Your task to perform on an android device: Clear the shopping cart on amazon. Search for rayovac triple a on amazon, select the first entry, and add it to the cart. Image 0: 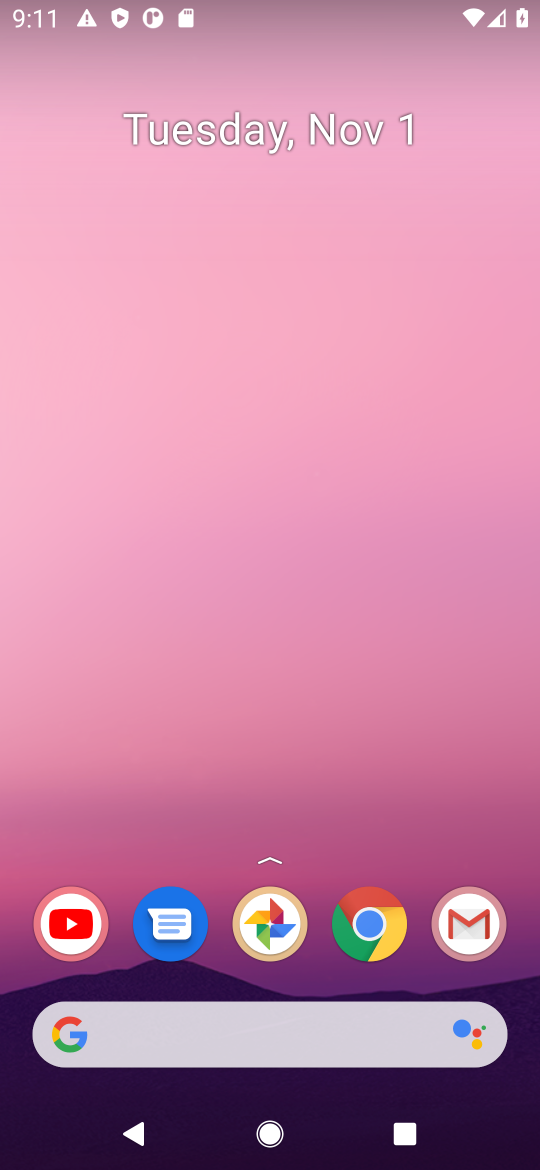
Step 0: click (375, 935)
Your task to perform on an android device: Clear the shopping cart on amazon. Search for rayovac triple a on amazon, select the first entry, and add it to the cart. Image 1: 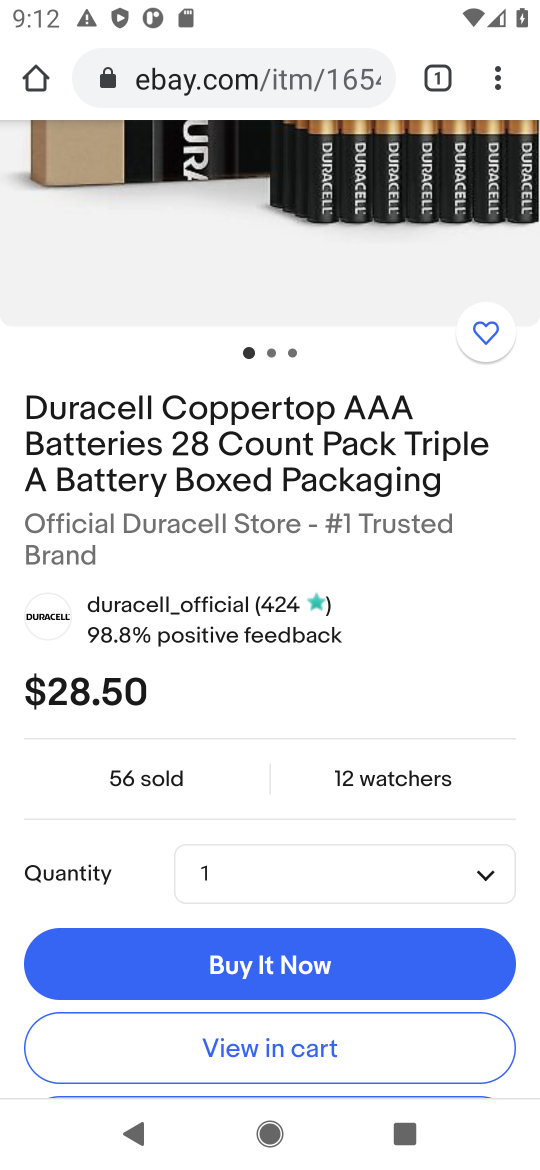
Step 1: click (248, 92)
Your task to perform on an android device: Clear the shopping cart on amazon. Search for rayovac triple a on amazon, select the first entry, and add it to the cart. Image 2: 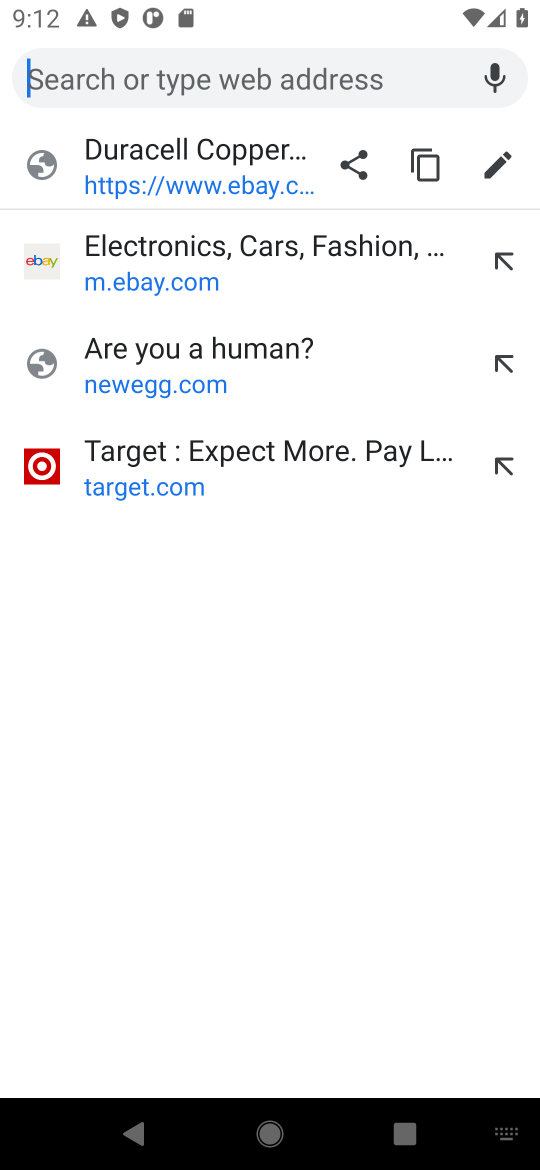
Step 2: type "amazon"
Your task to perform on an android device: Clear the shopping cart on amazon. Search for rayovac triple a on amazon, select the first entry, and add it to the cart. Image 3: 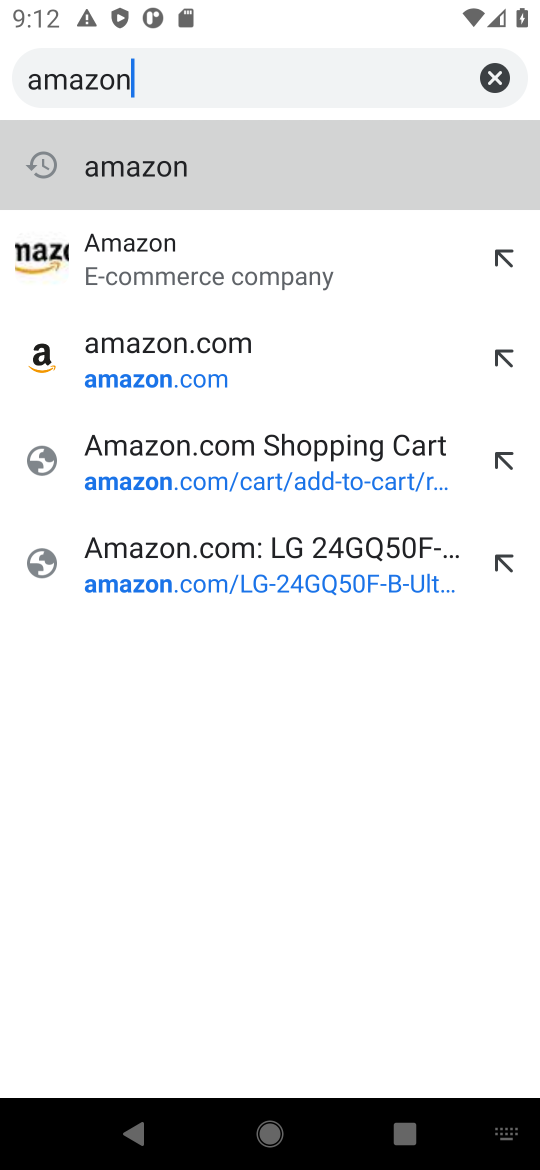
Step 3: click (142, 255)
Your task to perform on an android device: Clear the shopping cart on amazon. Search for rayovac triple a on amazon, select the first entry, and add it to the cart. Image 4: 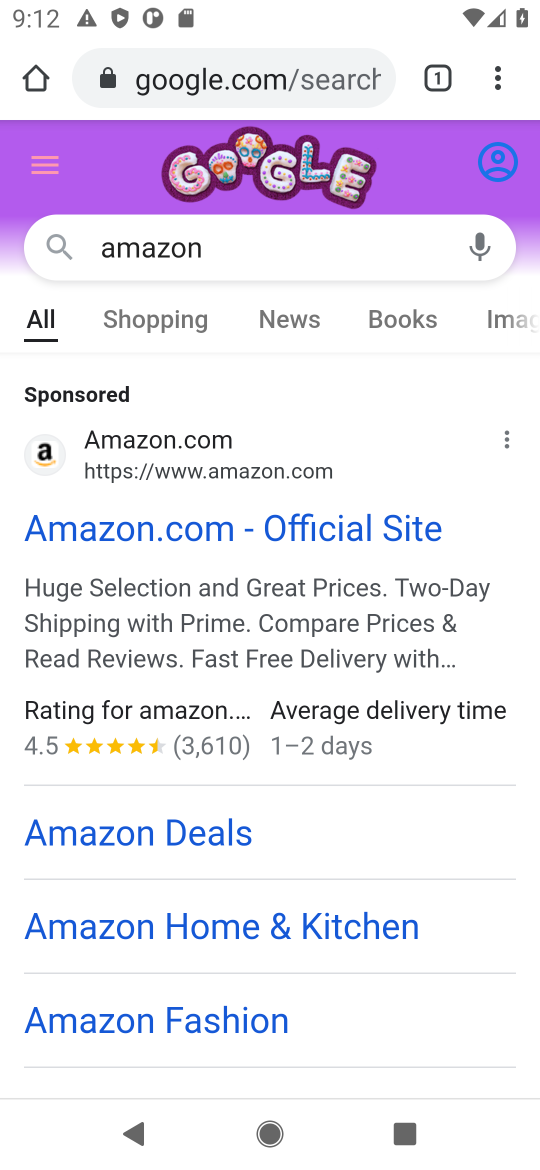
Step 4: click (187, 523)
Your task to perform on an android device: Clear the shopping cart on amazon. Search for rayovac triple a on amazon, select the first entry, and add it to the cart. Image 5: 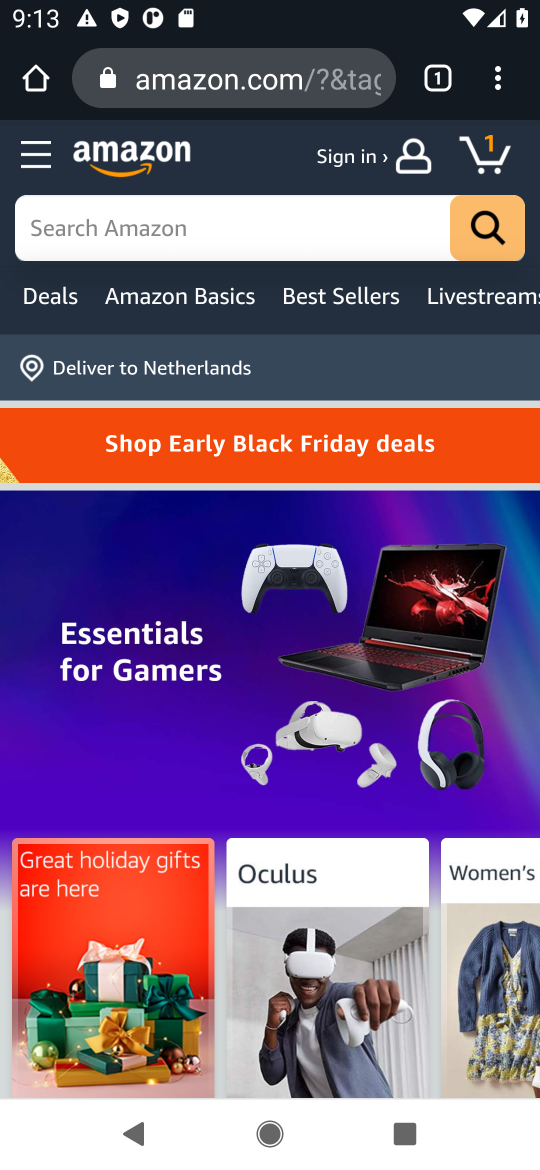
Step 5: click (490, 155)
Your task to perform on an android device: Clear the shopping cart on amazon. Search for rayovac triple a on amazon, select the first entry, and add it to the cart. Image 6: 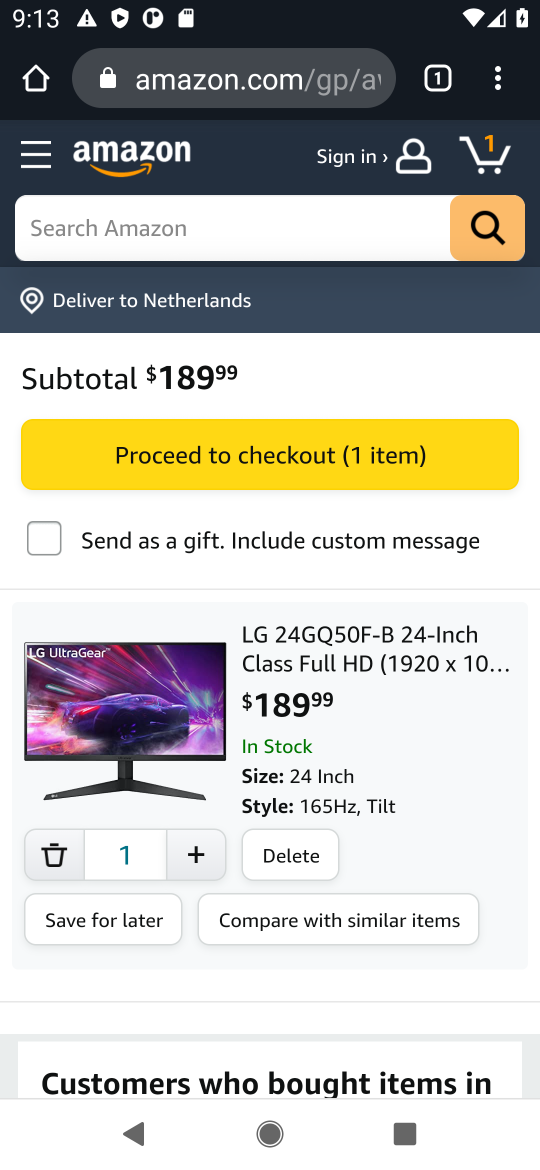
Step 6: click (267, 853)
Your task to perform on an android device: Clear the shopping cart on amazon. Search for rayovac triple a on amazon, select the first entry, and add it to the cart. Image 7: 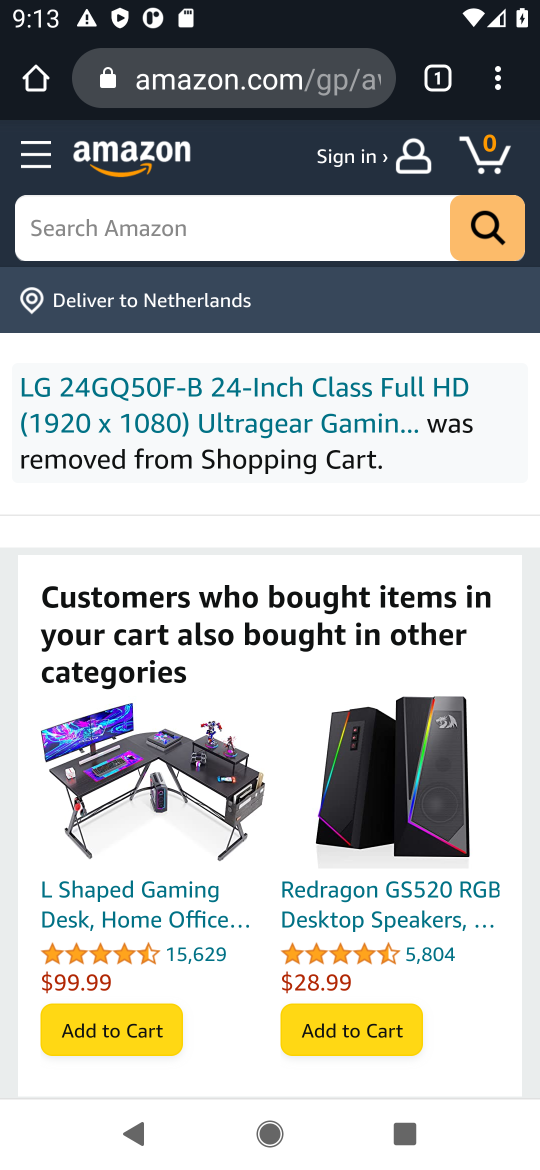
Step 7: click (288, 229)
Your task to perform on an android device: Clear the shopping cart on amazon. Search for rayovac triple a on amazon, select the first entry, and add it to the cart. Image 8: 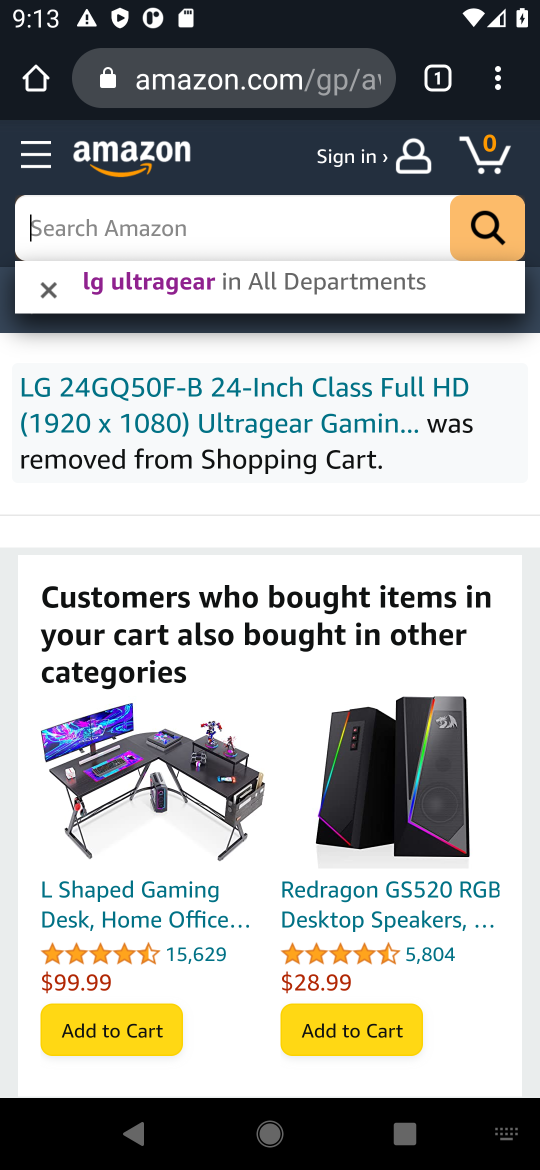
Step 8: type "rayovac triple a"
Your task to perform on an android device: Clear the shopping cart on amazon. Search for rayovac triple a on amazon, select the first entry, and add it to the cart. Image 9: 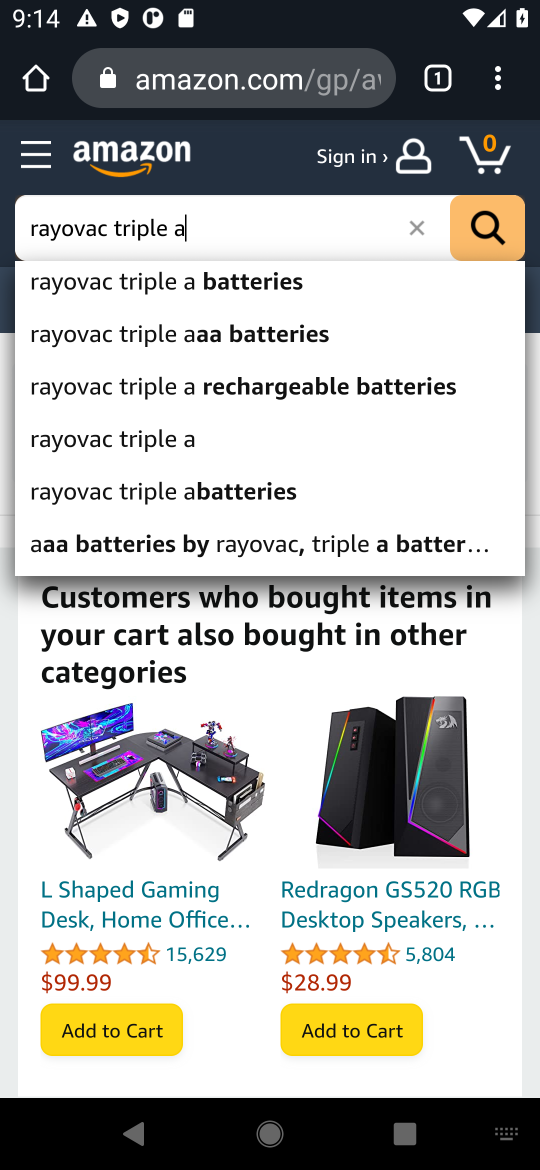
Step 9: press enter
Your task to perform on an android device: Clear the shopping cart on amazon. Search for rayovac triple a on amazon, select the first entry, and add it to the cart. Image 10: 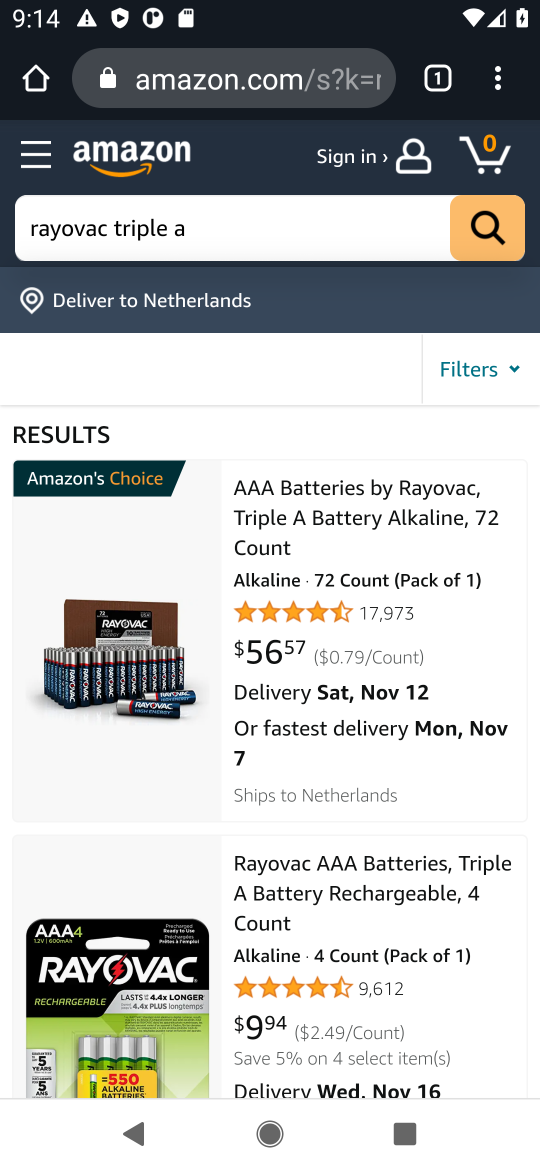
Step 10: click (349, 555)
Your task to perform on an android device: Clear the shopping cart on amazon. Search for rayovac triple a on amazon, select the first entry, and add it to the cart. Image 11: 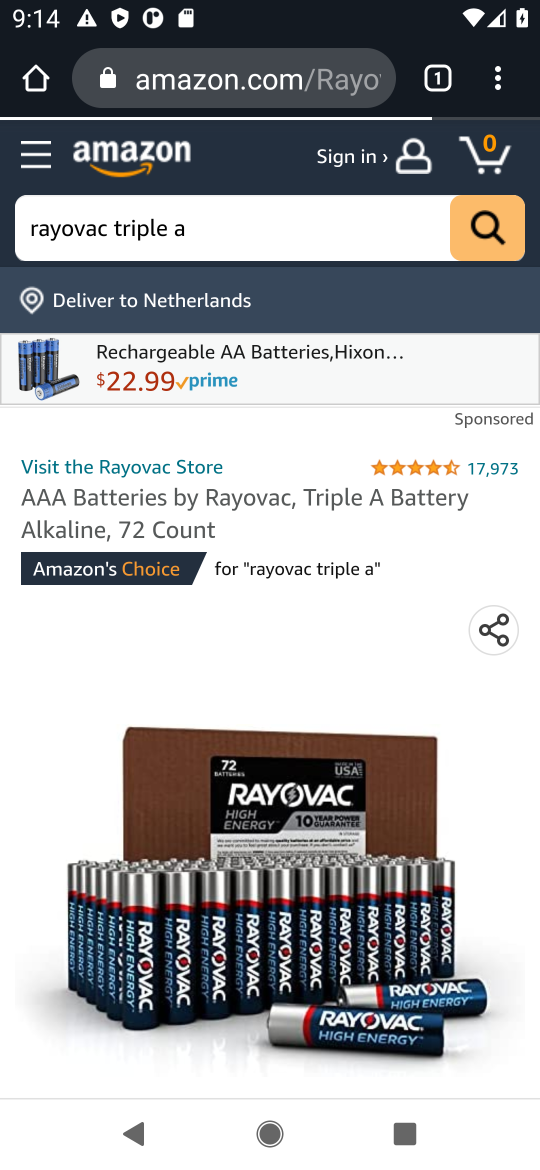
Step 11: drag from (372, 651) to (322, 170)
Your task to perform on an android device: Clear the shopping cart on amazon. Search for rayovac triple a on amazon, select the first entry, and add it to the cart. Image 12: 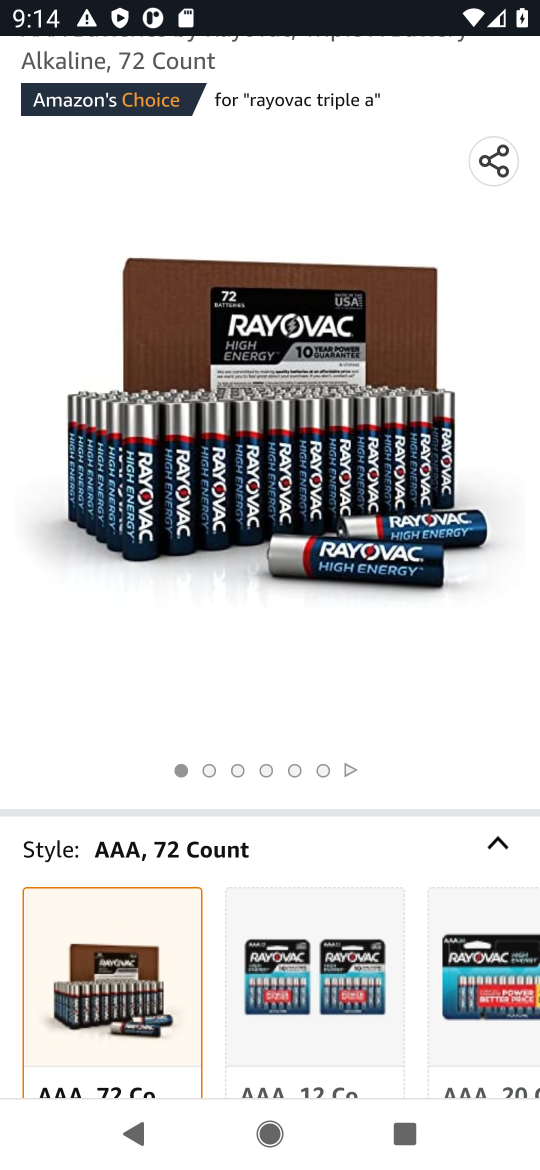
Step 12: drag from (422, 808) to (361, 384)
Your task to perform on an android device: Clear the shopping cart on amazon. Search for rayovac triple a on amazon, select the first entry, and add it to the cart. Image 13: 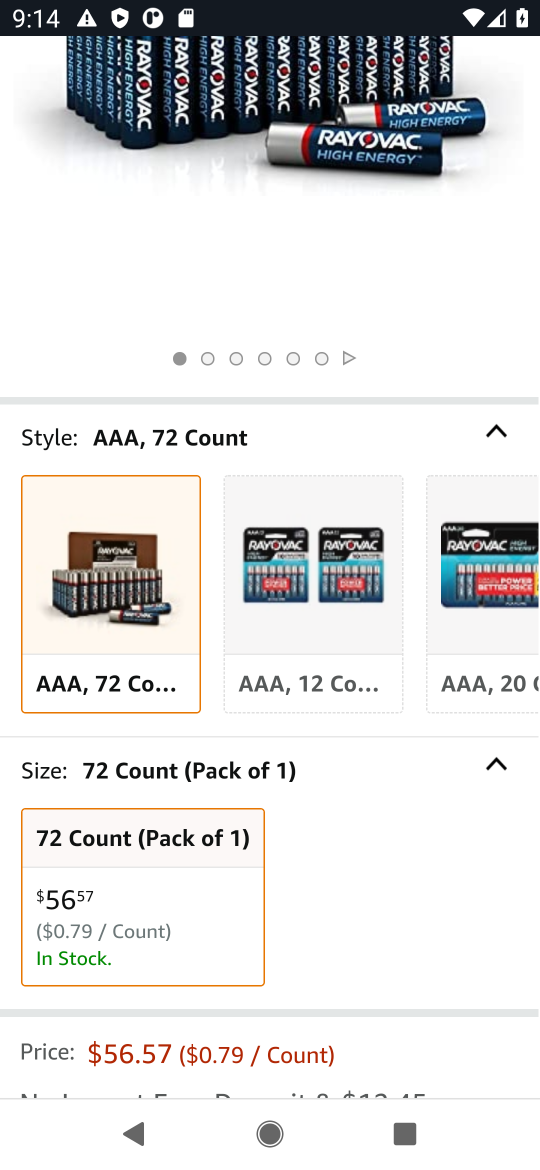
Step 13: drag from (419, 911) to (368, 593)
Your task to perform on an android device: Clear the shopping cart on amazon. Search for rayovac triple a on amazon, select the first entry, and add it to the cart. Image 14: 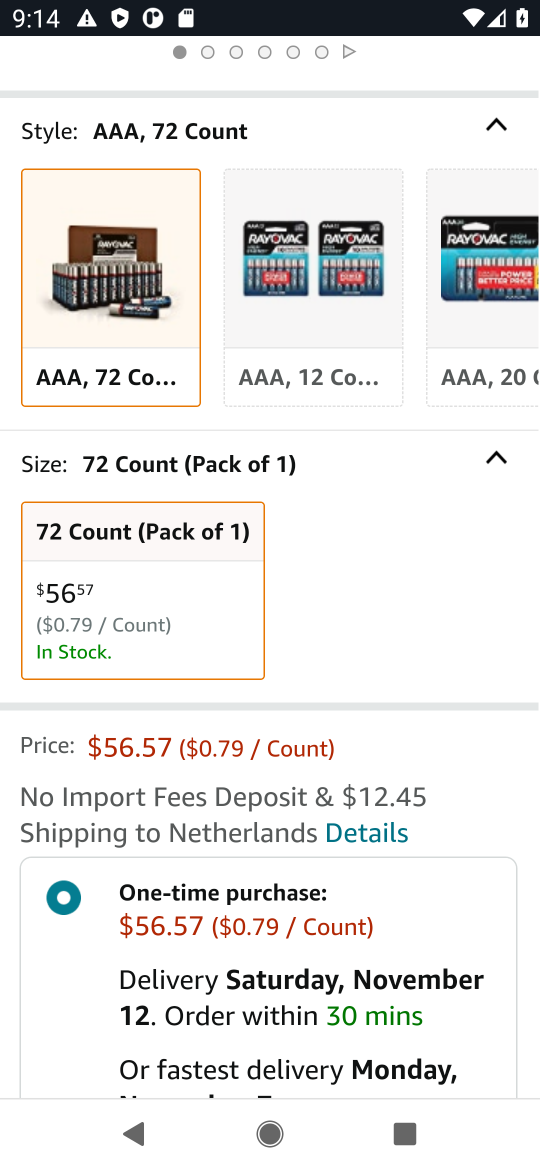
Step 14: drag from (472, 916) to (417, 412)
Your task to perform on an android device: Clear the shopping cart on amazon. Search for rayovac triple a on amazon, select the first entry, and add it to the cart. Image 15: 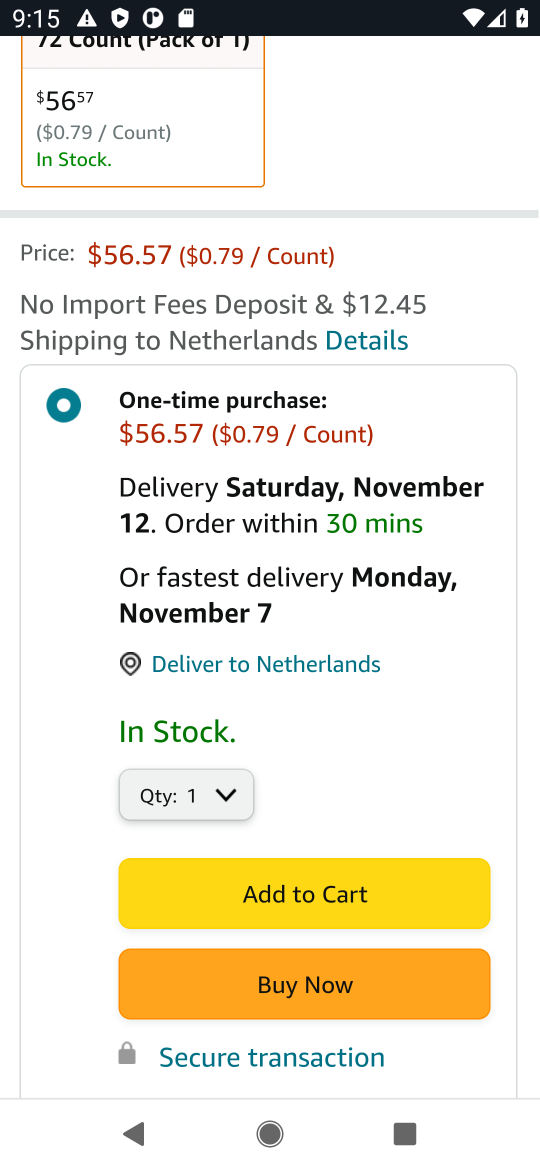
Step 15: click (300, 897)
Your task to perform on an android device: Clear the shopping cart on amazon. Search for rayovac triple a on amazon, select the first entry, and add it to the cart. Image 16: 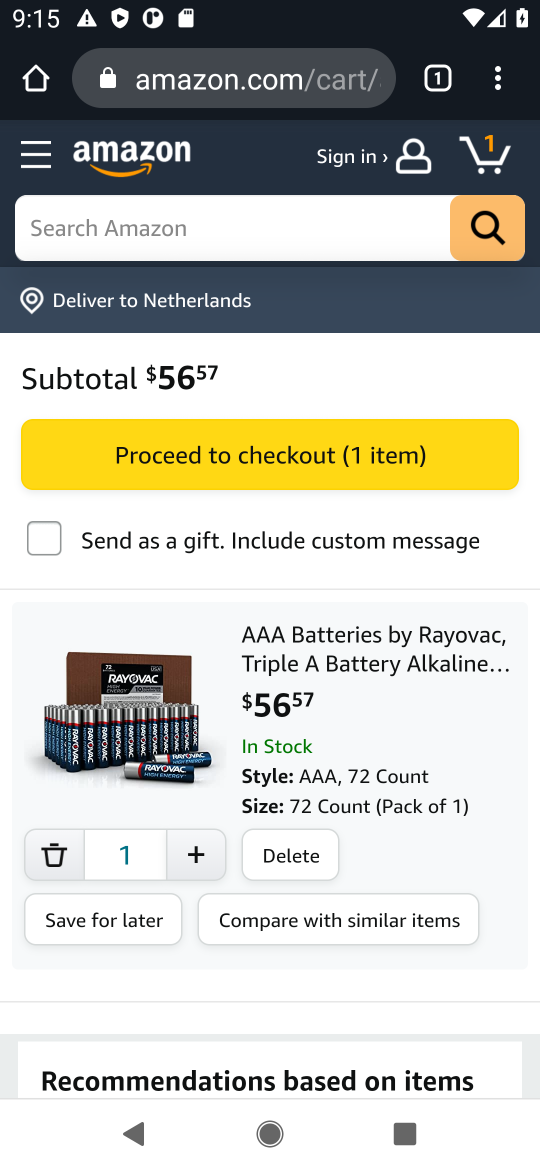
Step 16: task complete